Your task to perform on an android device: choose inbox layout in the gmail app Image 0: 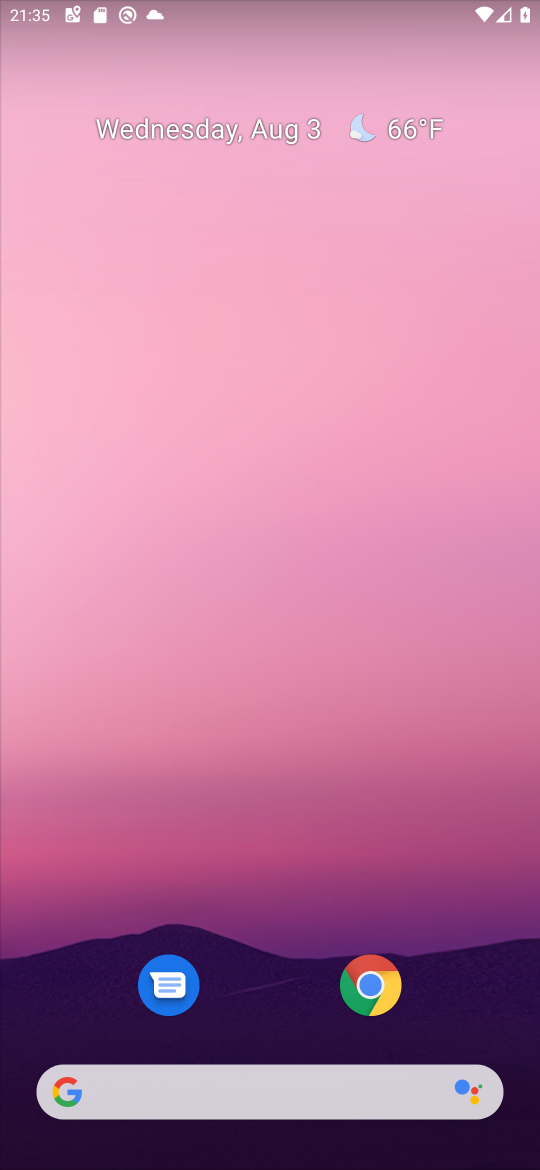
Step 0: drag from (267, 983) to (267, 219)
Your task to perform on an android device: choose inbox layout in the gmail app Image 1: 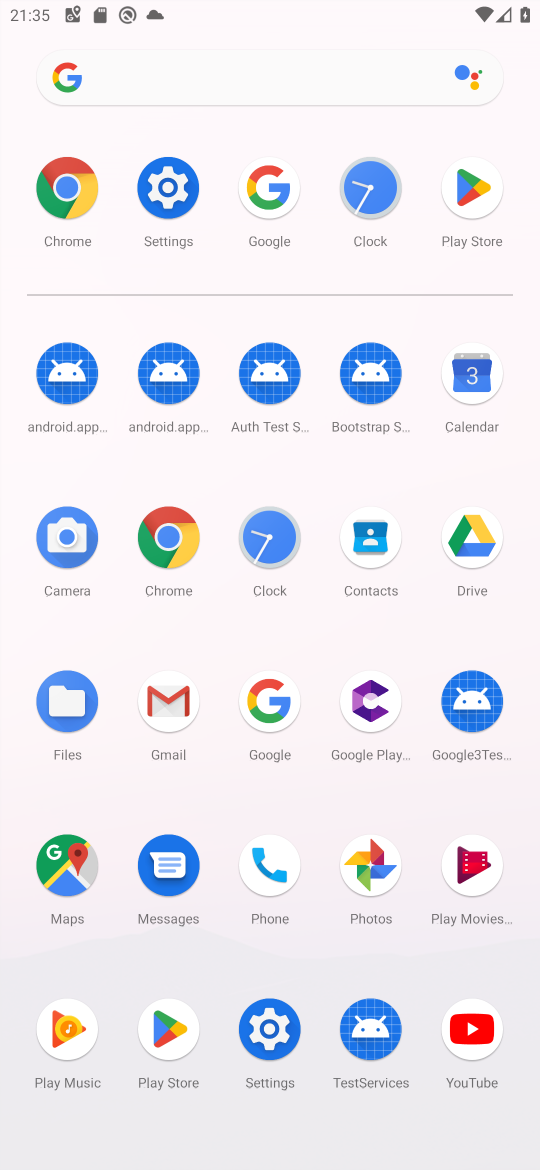
Step 1: click (191, 719)
Your task to perform on an android device: choose inbox layout in the gmail app Image 2: 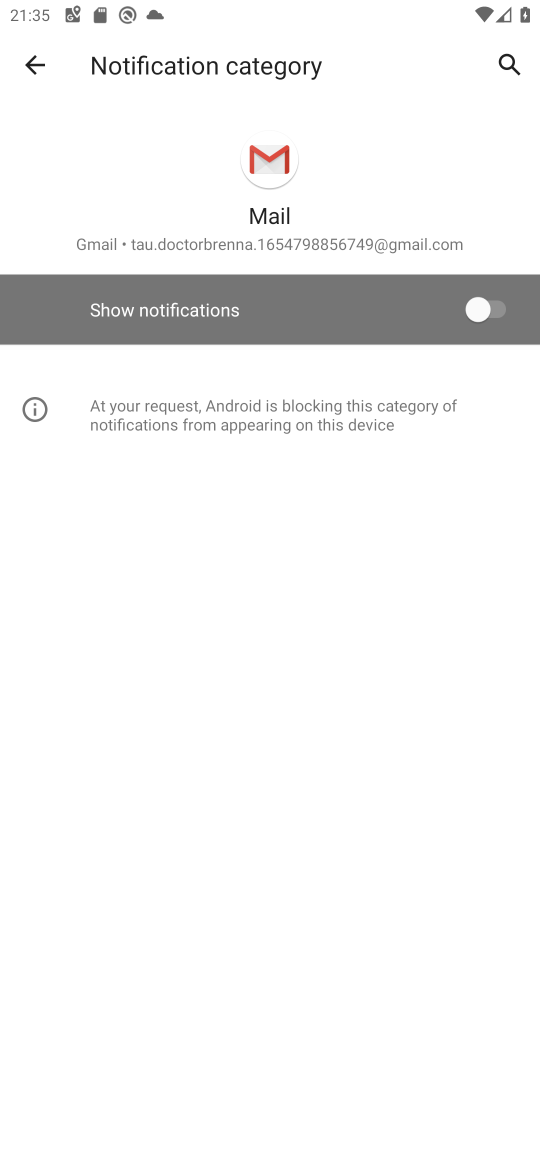
Step 2: click (39, 77)
Your task to perform on an android device: choose inbox layout in the gmail app Image 3: 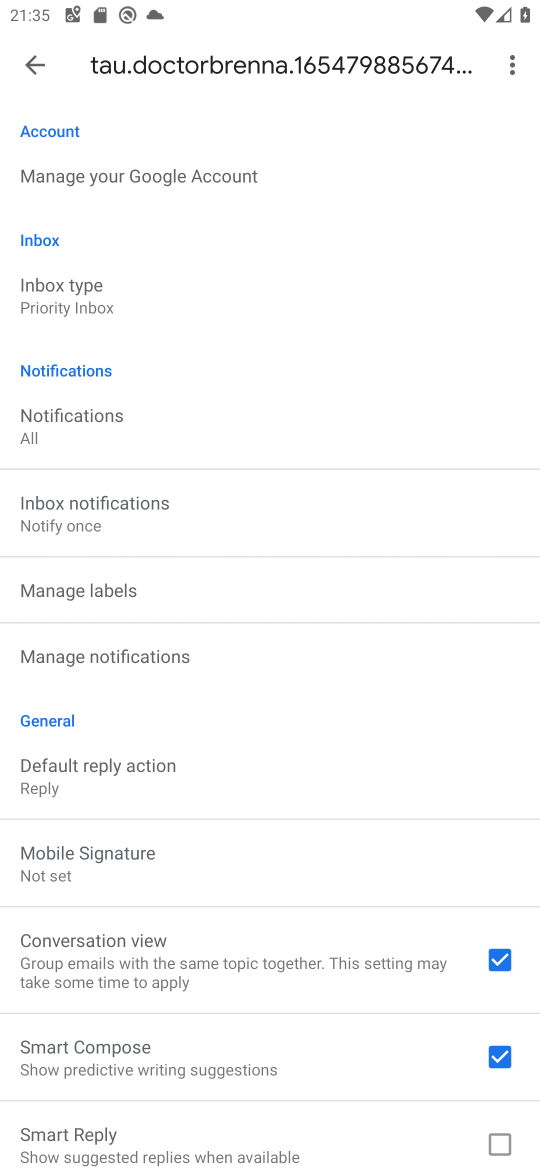
Step 3: click (156, 288)
Your task to perform on an android device: choose inbox layout in the gmail app Image 4: 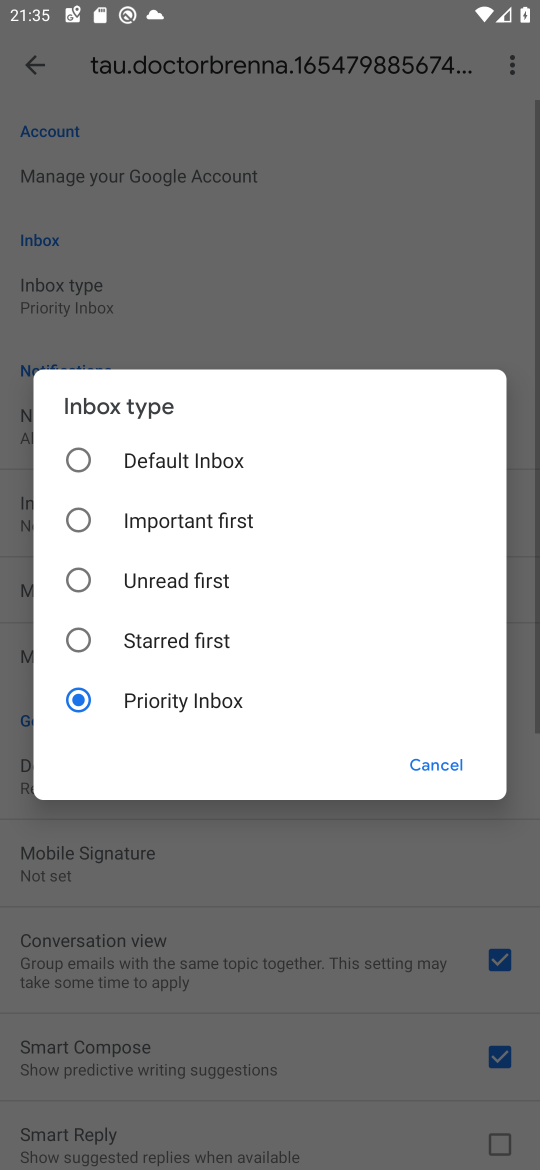
Step 4: click (154, 433)
Your task to perform on an android device: choose inbox layout in the gmail app Image 5: 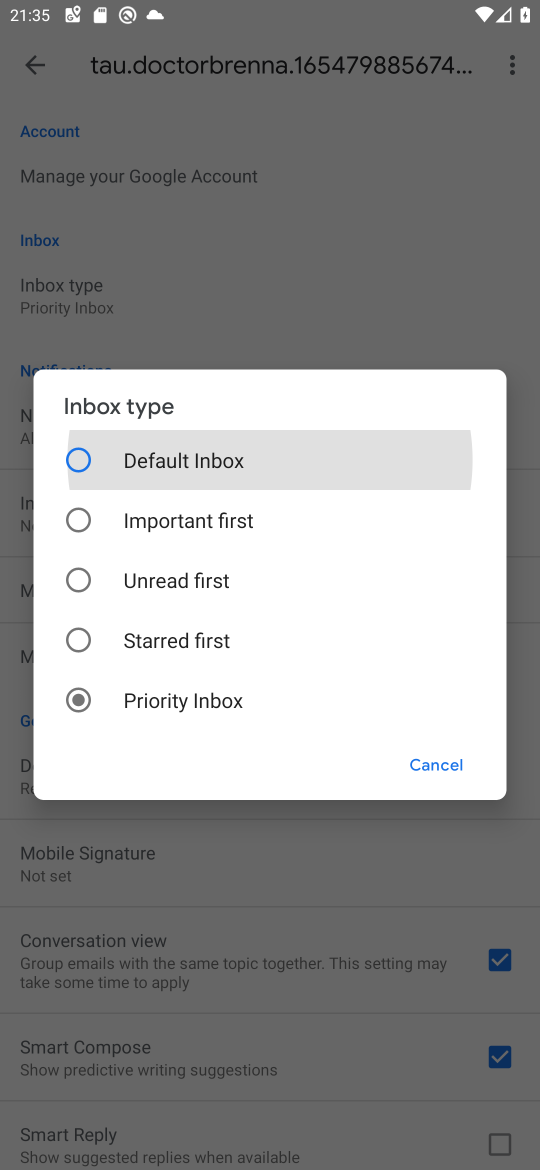
Step 5: task complete